Your task to perform on an android device: turn off javascript in the chrome app Image 0: 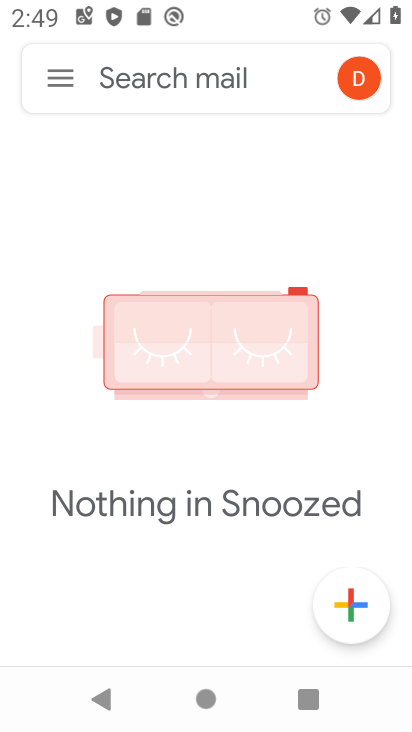
Step 0: press home button
Your task to perform on an android device: turn off javascript in the chrome app Image 1: 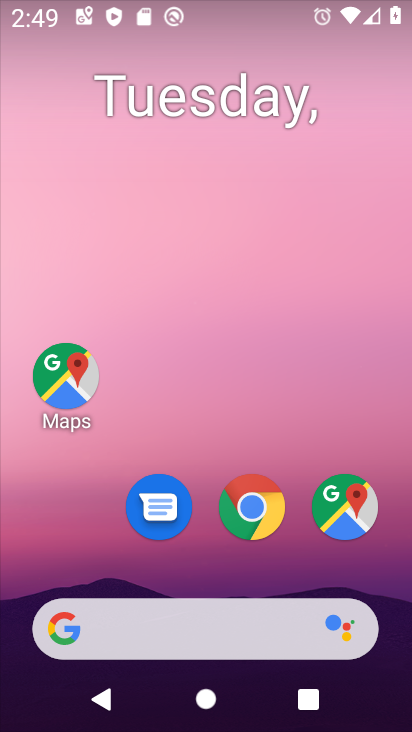
Step 1: click (251, 505)
Your task to perform on an android device: turn off javascript in the chrome app Image 2: 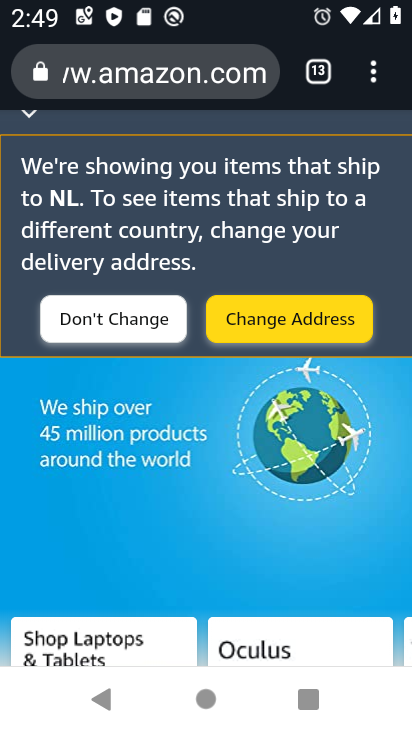
Step 2: click (362, 68)
Your task to perform on an android device: turn off javascript in the chrome app Image 3: 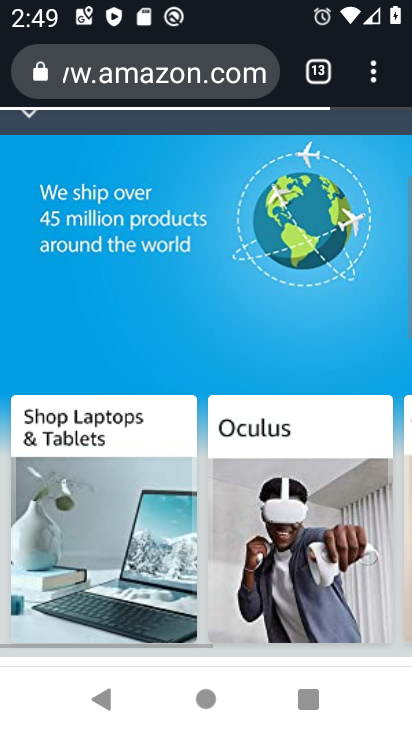
Step 3: click (366, 73)
Your task to perform on an android device: turn off javascript in the chrome app Image 4: 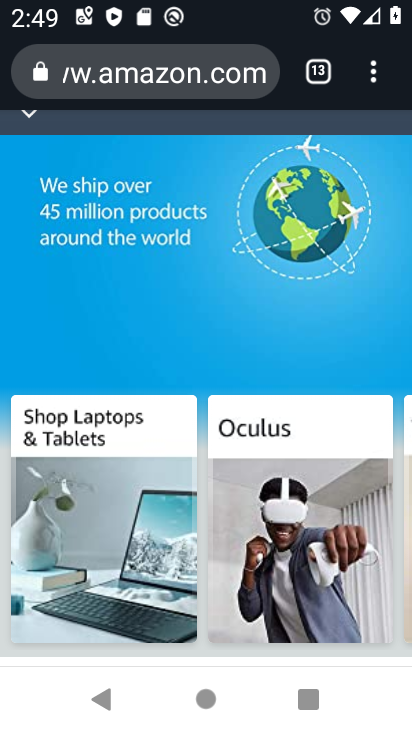
Step 4: click (385, 75)
Your task to perform on an android device: turn off javascript in the chrome app Image 5: 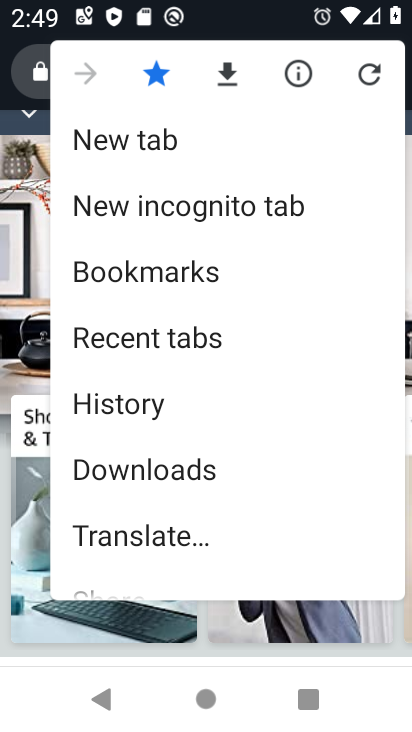
Step 5: click (145, 405)
Your task to perform on an android device: turn off javascript in the chrome app Image 6: 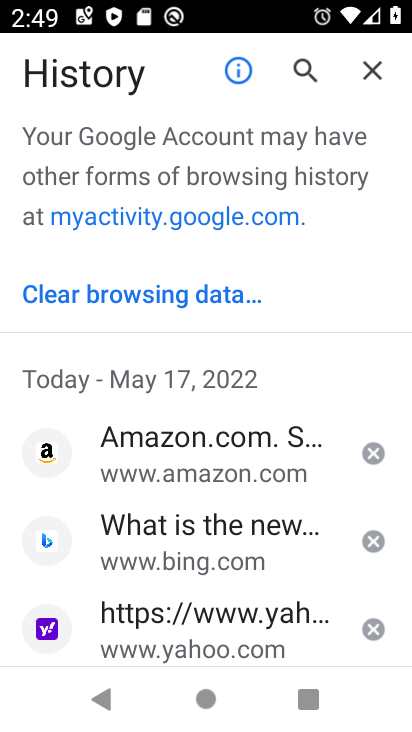
Step 6: click (365, 67)
Your task to perform on an android device: turn off javascript in the chrome app Image 7: 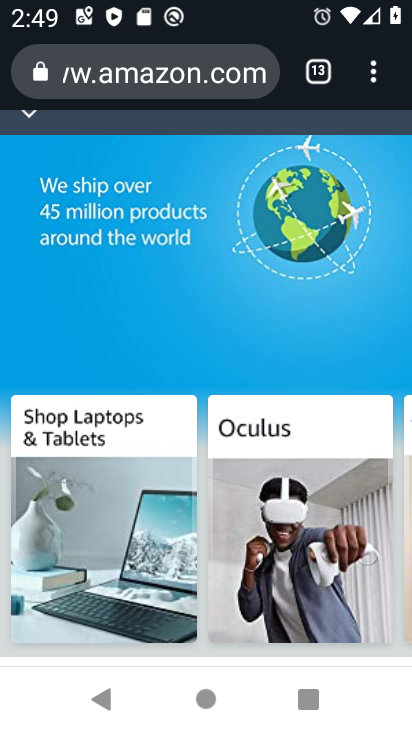
Step 7: click (369, 84)
Your task to perform on an android device: turn off javascript in the chrome app Image 8: 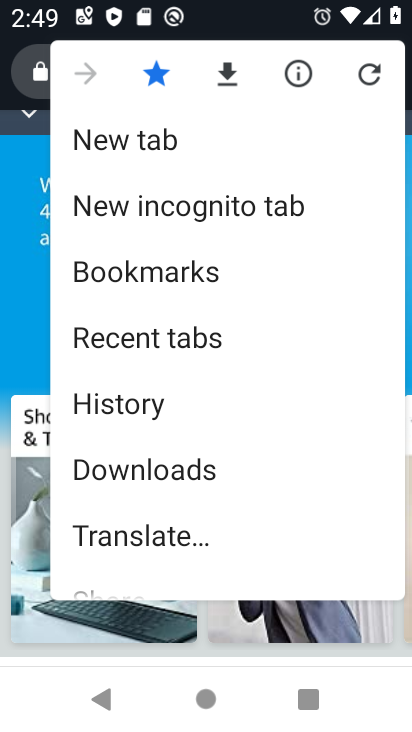
Step 8: drag from (176, 401) to (201, 271)
Your task to perform on an android device: turn off javascript in the chrome app Image 9: 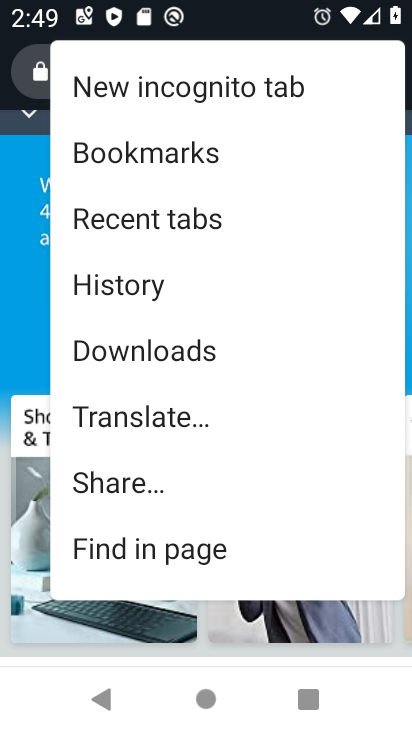
Step 9: drag from (146, 446) to (211, 141)
Your task to perform on an android device: turn off javascript in the chrome app Image 10: 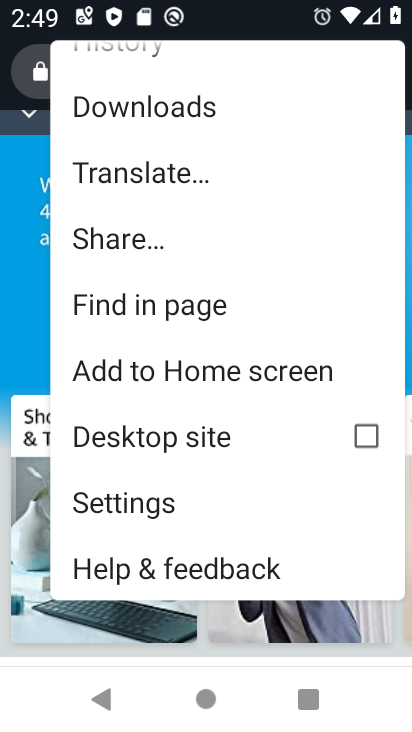
Step 10: click (121, 506)
Your task to perform on an android device: turn off javascript in the chrome app Image 11: 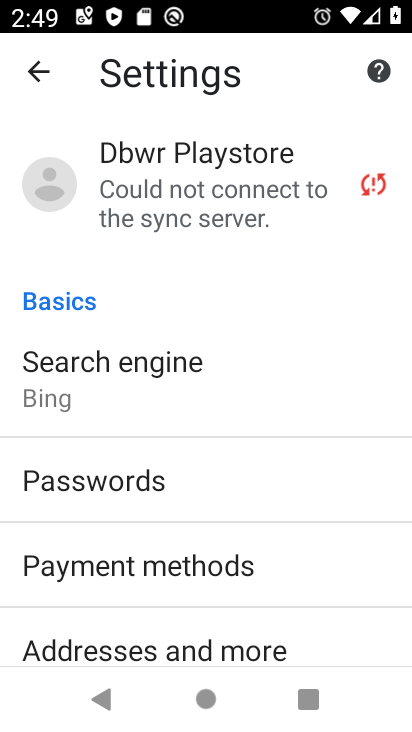
Step 11: drag from (152, 575) to (224, 243)
Your task to perform on an android device: turn off javascript in the chrome app Image 12: 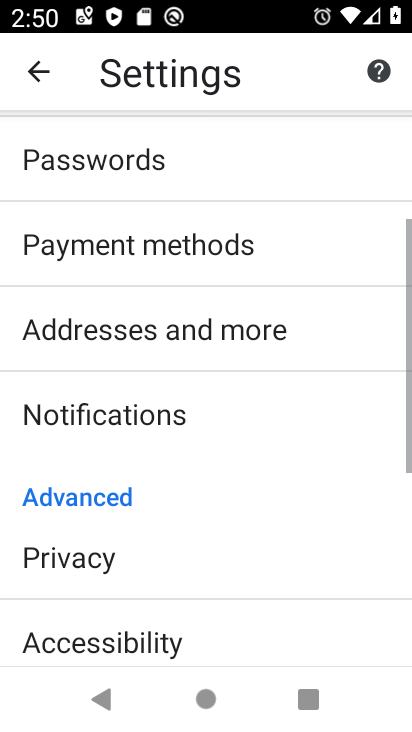
Step 12: drag from (147, 576) to (210, 205)
Your task to perform on an android device: turn off javascript in the chrome app Image 13: 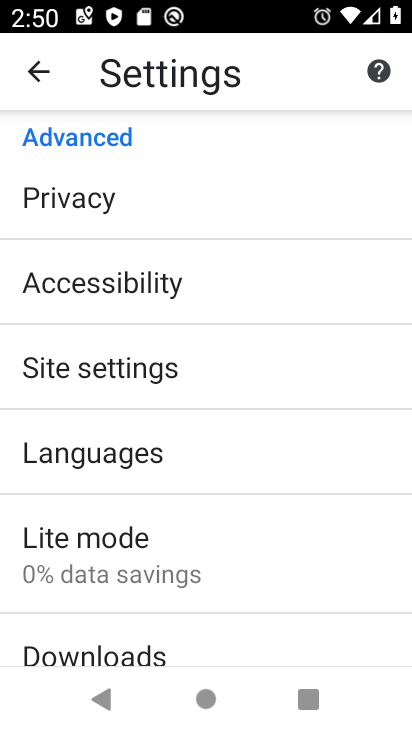
Step 13: click (98, 376)
Your task to perform on an android device: turn off javascript in the chrome app Image 14: 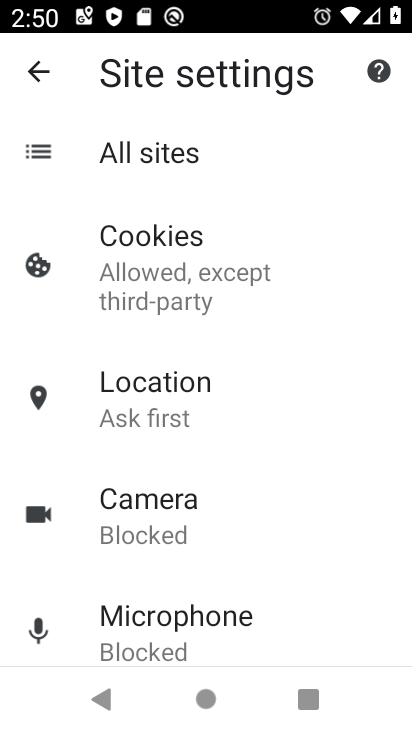
Step 14: drag from (203, 577) to (231, 283)
Your task to perform on an android device: turn off javascript in the chrome app Image 15: 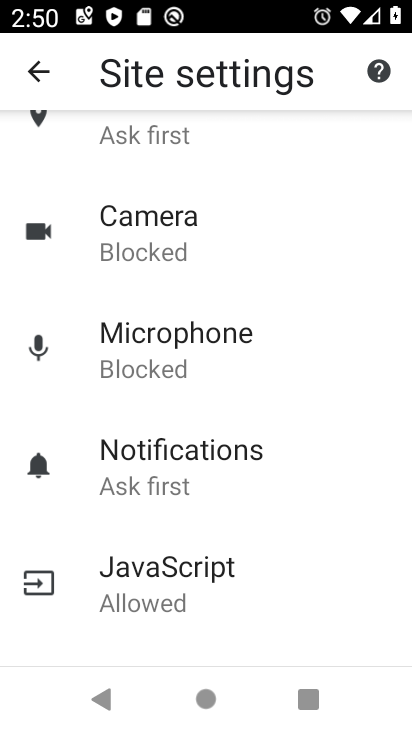
Step 15: click (144, 565)
Your task to perform on an android device: turn off javascript in the chrome app Image 16: 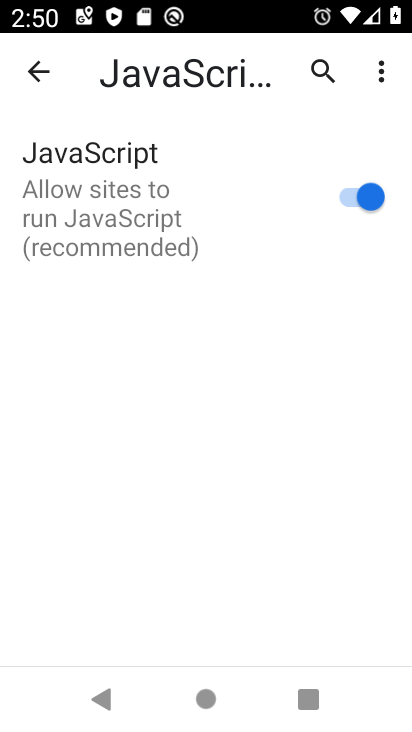
Step 16: click (330, 198)
Your task to perform on an android device: turn off javascript in the chrome app Image 17: 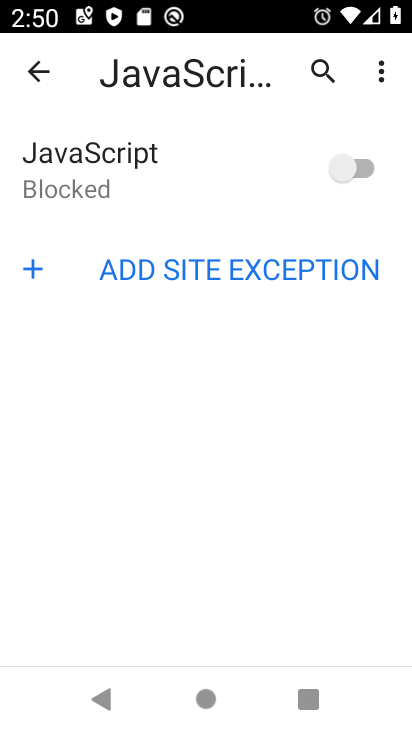
Step 17: task complete